Your task to perform on an android device: Go to location settings Image 0: 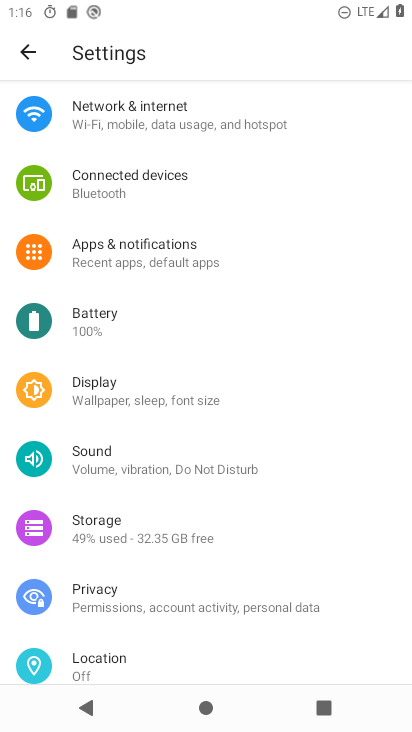
Step 0: click (110, 662)
Your task to perform on an android device: Go to location settings Image 1: 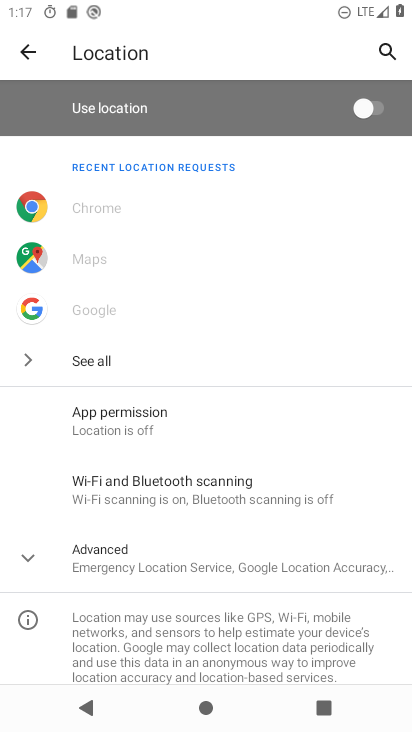
Step 1: task complete